Your task to perform on an android device: create a new album in the google photos Image 0: 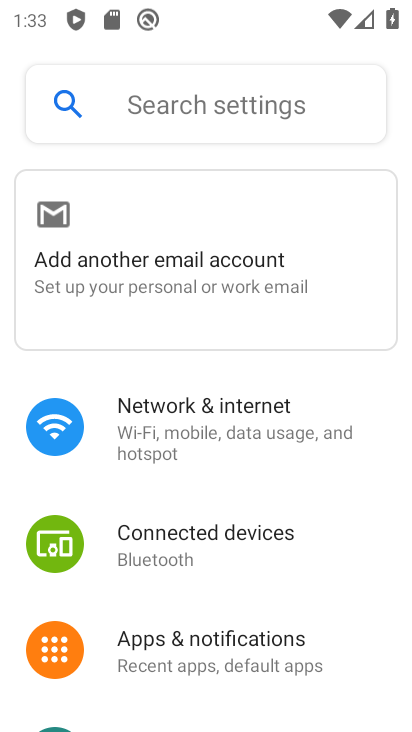
Step 0: press home button
Your task to perform on an android device: create a new album in the google photos Image 1: 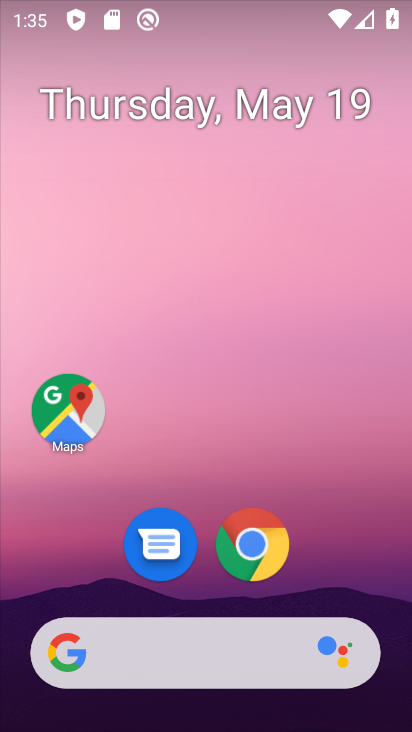
Step 1: drag from (237, 645) to (146, 70)
Your task to perform on an android device: create a new album in the google photos Image 2: 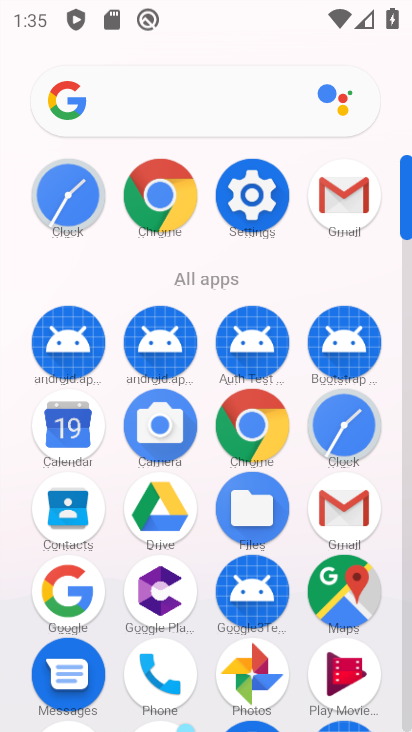
Step 2: click (253, 682)
Your task to perform on an android device: create a new album in the google photos Image 3: 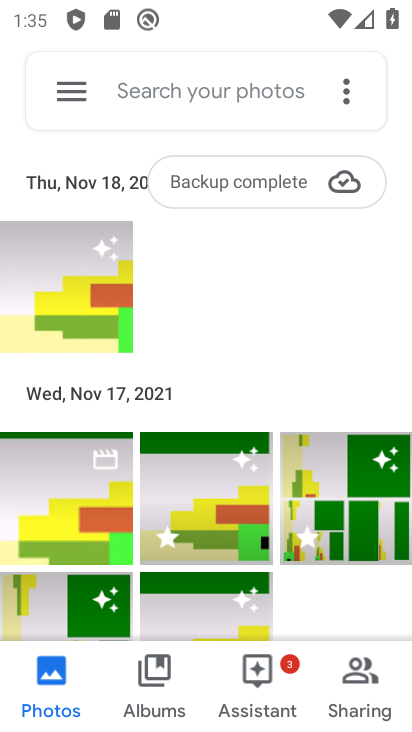
Step 3: click (321, 490)
Your task to perform on an android device: create a new album in the google photos Image 4: 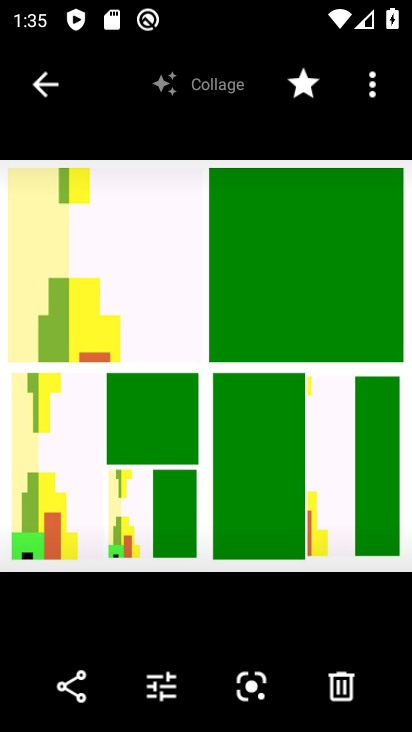
Step 4: click (379, 97)
Your task to perform on an android device: create a new album in the google photos Image 5: 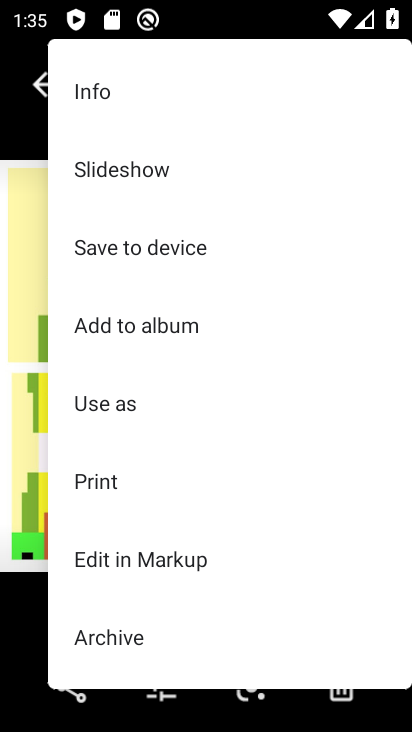
Step 5: click (137, 335)
Your task to perform on an android device: create a new album in the google photos Image 6: 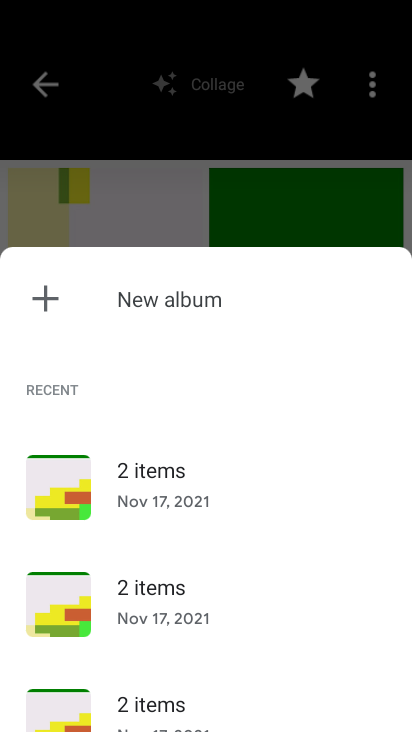
Step 6: click (113, 302)
Your task to perform on an android device: create a new album in the google photos Image 7: 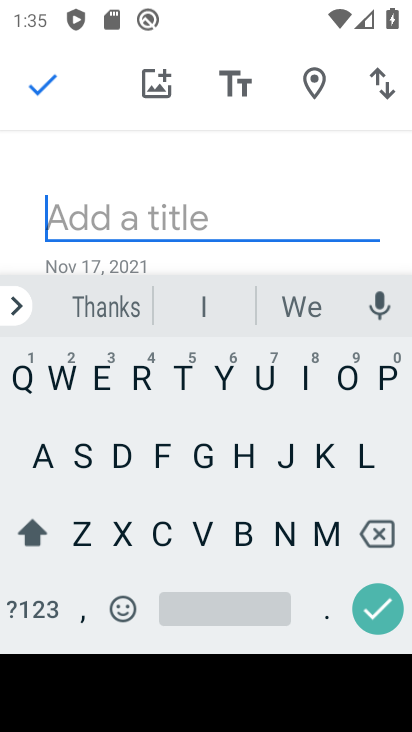
Step 7: click (195, 372)
Your task to perform on an android device: create a new album in the google photos Image 8: 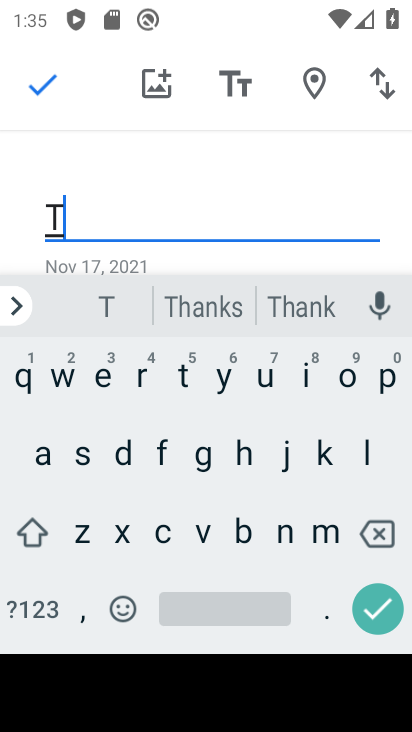
Step 8: drag from (347, 375) to (387, 386)
Your task to perform on an android device: create a new album in the google photos Image 9: 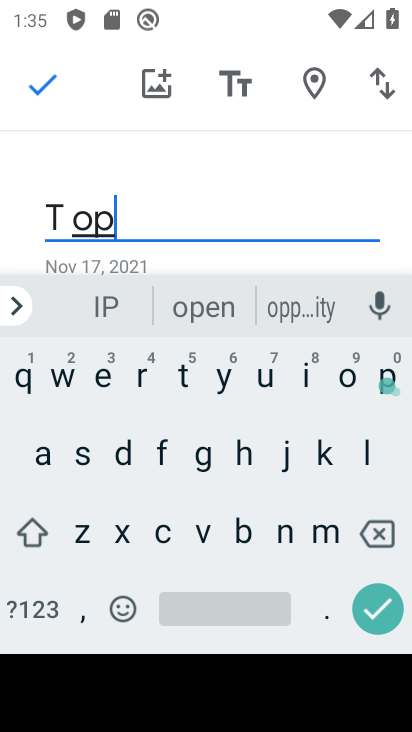
Step 9: click (387, 386)
Your task to perform on an android device: create a new album in the google photos Image 10: 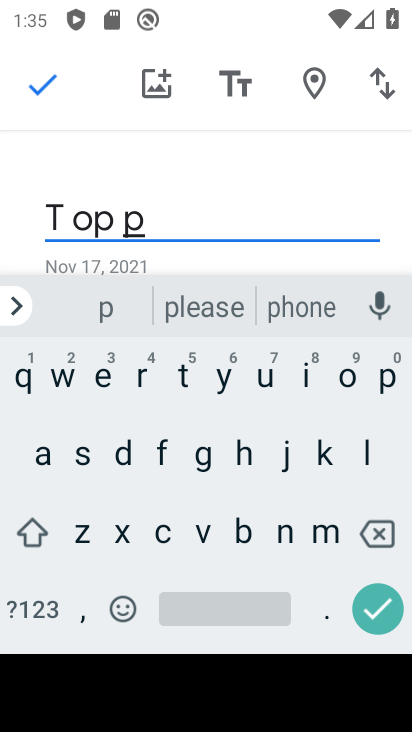
Step 10: click (39, 85)
Your task to perform on an android device: create a new album in the google photos Image 11: 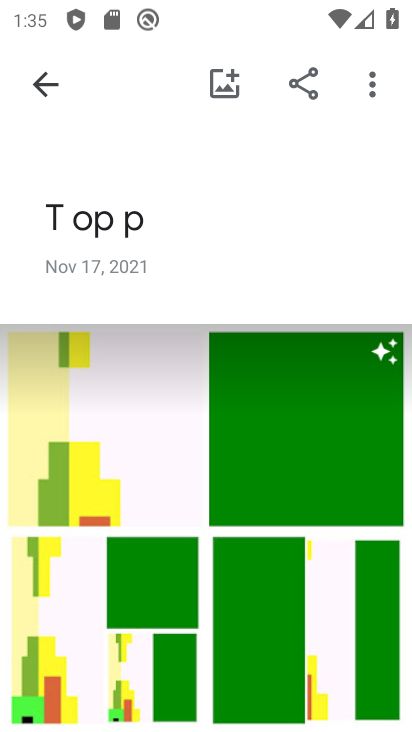
Step 11: task complete